Your task to perform on an android device: toggle priority inbox in the gmail app Image 0: 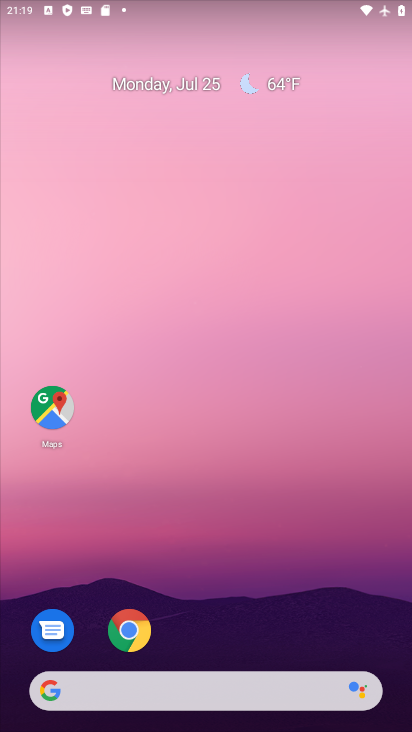
Step 0: drag from (394, 666) to (364, 110)
Your task to perform on an android device: toggle priority inbox in the gmail app Image 1: 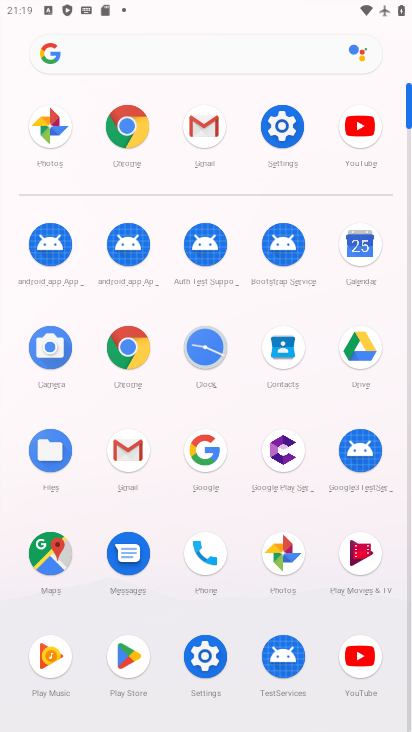
Step 1: click (127, 447)
Your task to perform on an android device: toggle priority inbox in the gmail app Image 2: 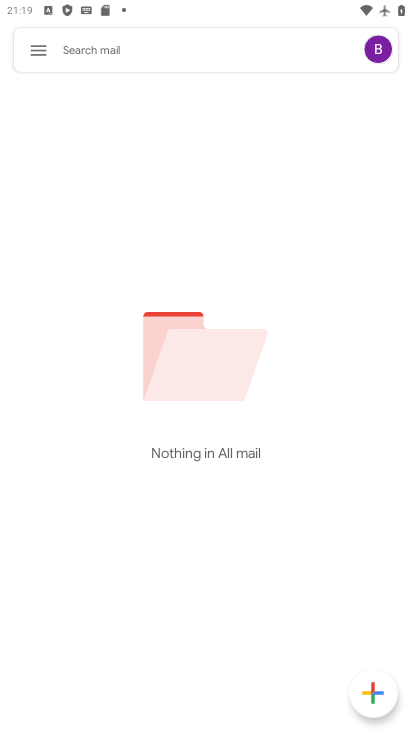
Step 2: click (39, 57)
Your task to perform on an android device: toggle priority inbox in the gmail app Image 3: 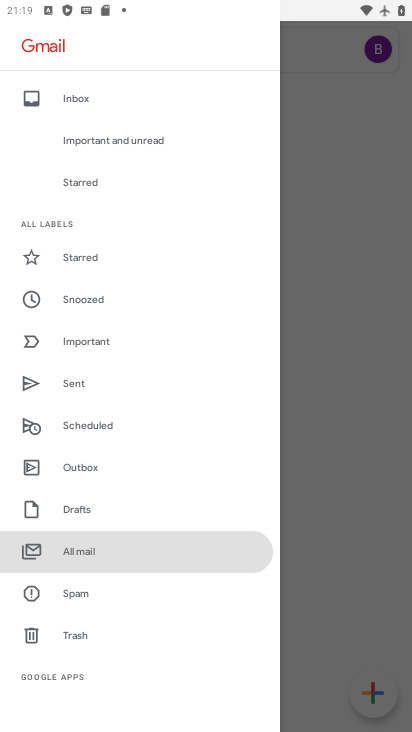
Step 3: drag from (184, 639) to (212, 359)
Your task to perform on an android device: toggle priority inbox in the gmail app Image 4: 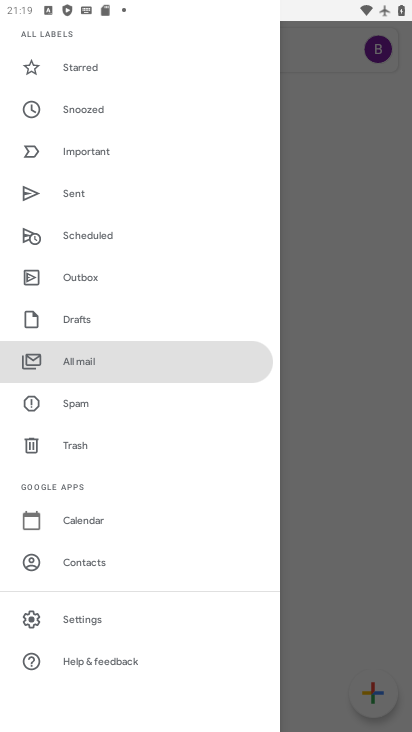
Step 4: click (79, 618)
Your task to perform on an android device: toggle priority inbox in the gmail app Image 5: 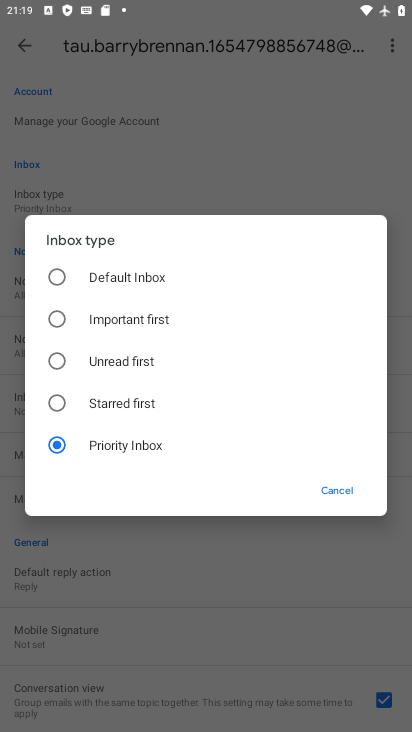
Step 5: click (57, 277)
Your task to perform on an android device: toggle priority inbox in the gmail app Image 6: 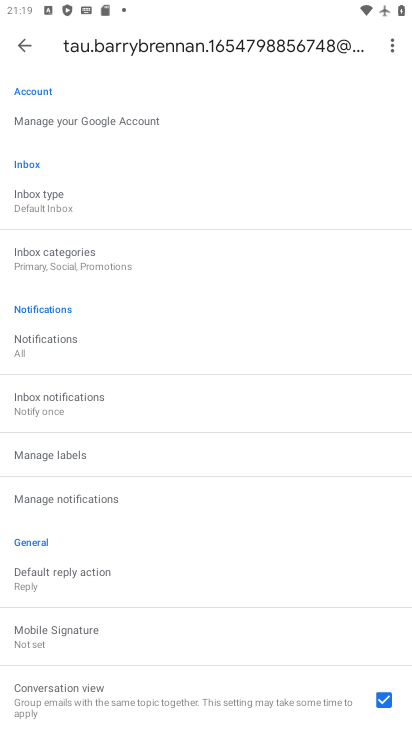
Step 6: task complete